Your task to perform on an android device: allow notifications from all sites in the chrome app Image 0: 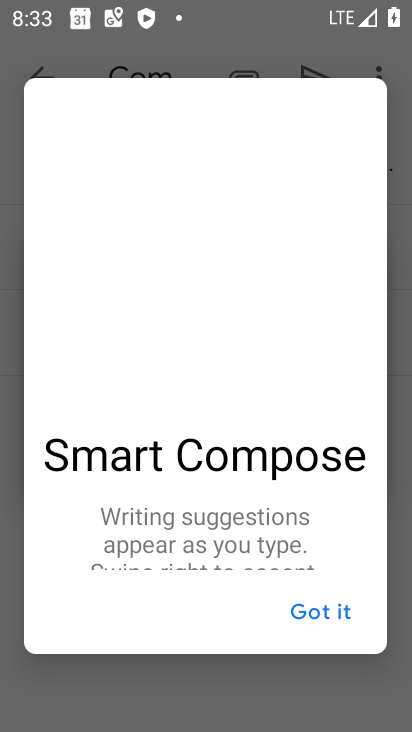
Step 0: press back button
Your task to perform on an android device: allow notifications from all sites in the chrome app Image 1: 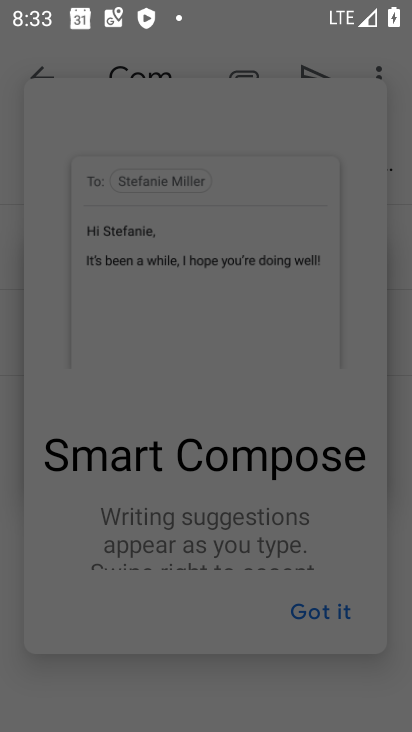
Step 1: press back button
Your task to perform on an android device: allow notifications from all sites in the chrome app Image 2: 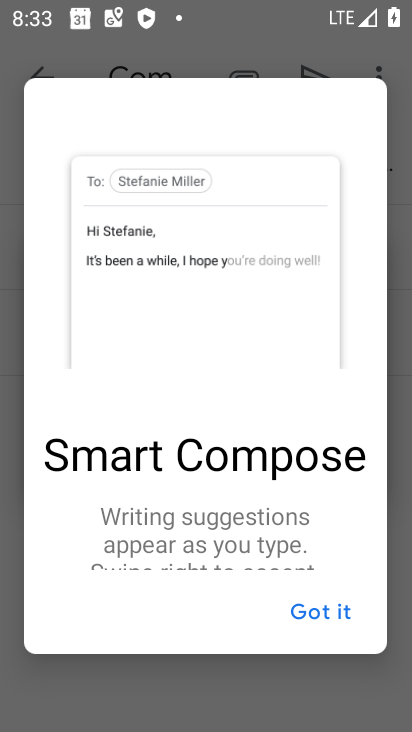
Step 2: press back button
Your task to perform on an android device: allow notifications from all sites in the chrome app Image 3: 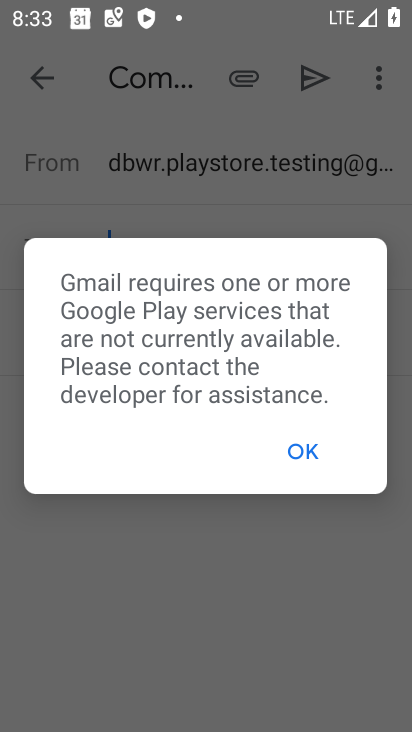
Step 3: press back button
Your task to perform on an android device: allow notifications from all sites in the chrome app Image 4: 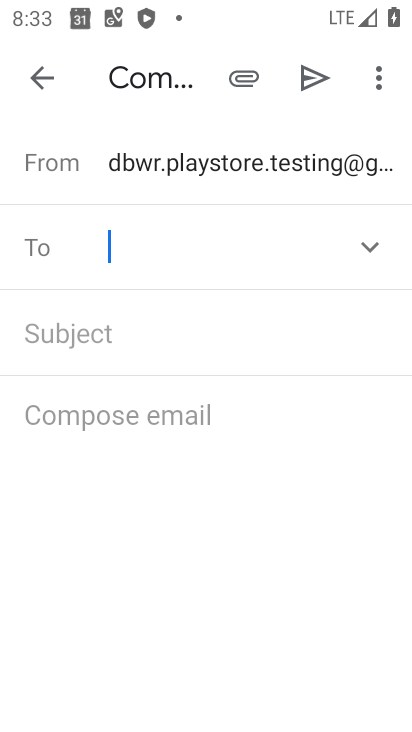
Step 4: press home button
Your task to perform on an android device: allow notifications from all sites in the chrome app Image 5: 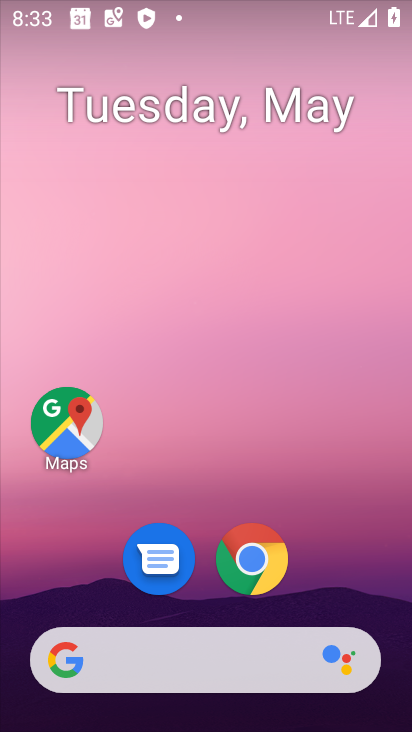
Step 5: click (256, 567)
Your task to perform on an android device: allow notifications from all sites in the chrome app Image 6: 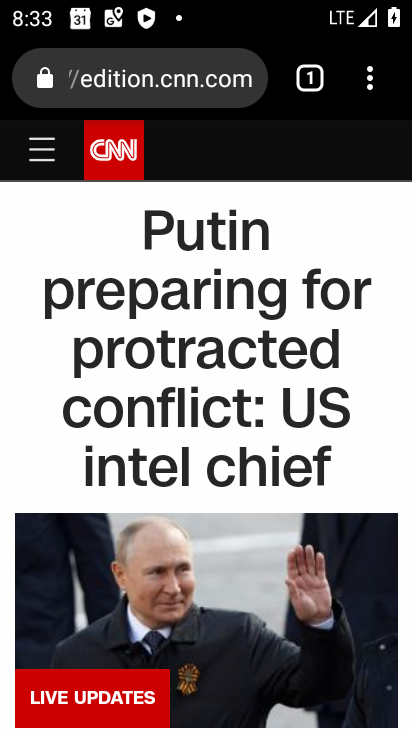
Step 6: drag from (369, 75) to (95, 607)
Your task to perform on an android device: allow notifications from all sites in the chrome app Image 7: 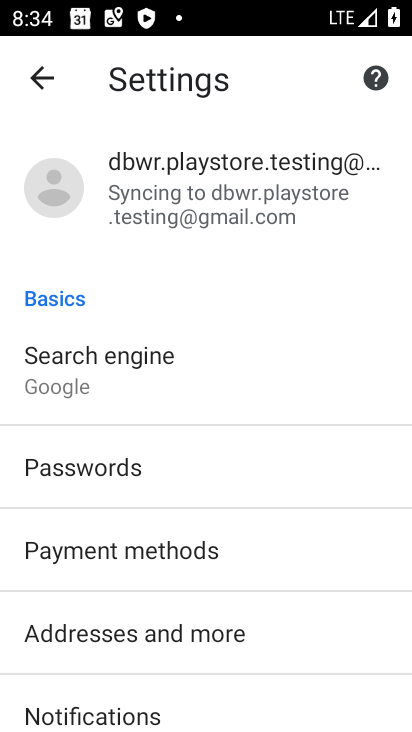
Step 7: drag from (159, 690) to (206, 360)
Your task to perform on an android device: allow notifications from all sites in the chrome app Image 8: 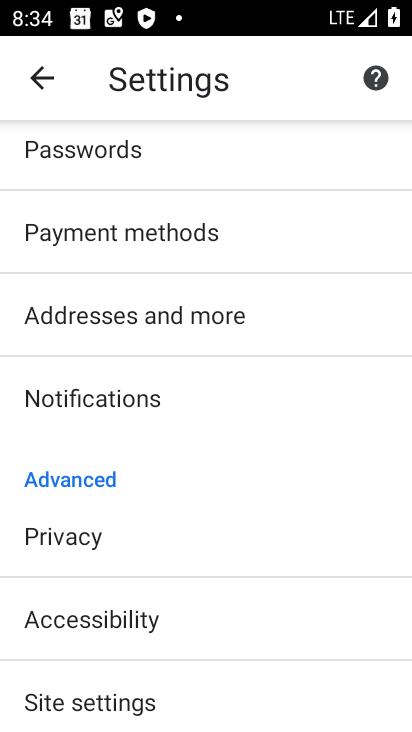
Step 8: click (84, 390)
Your task to perform on an android device: allow notifications from all sites in the chrome app Image 9: 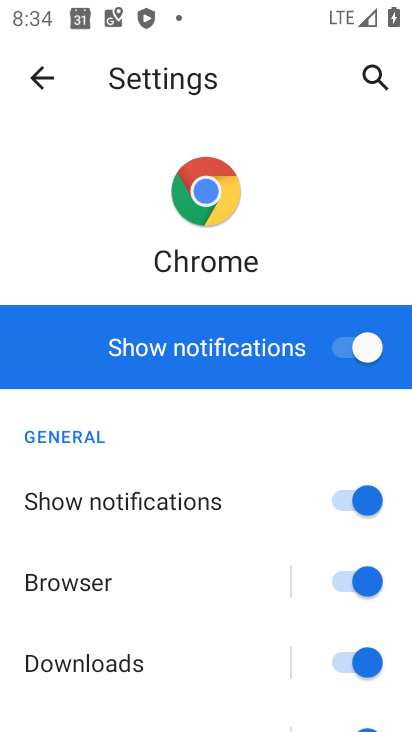
Step 9: task complete